Your task to perform on an android device: Open calendar and show me the fourth week of next month Image 0: 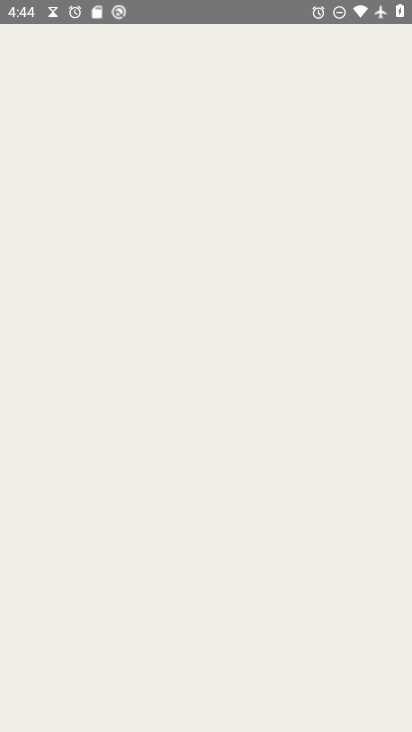
Step 0: drag from (237, 403) to (235, 19)
Your task to perform on an android device: Open calendar and show me the fourth week of next month Image 1: 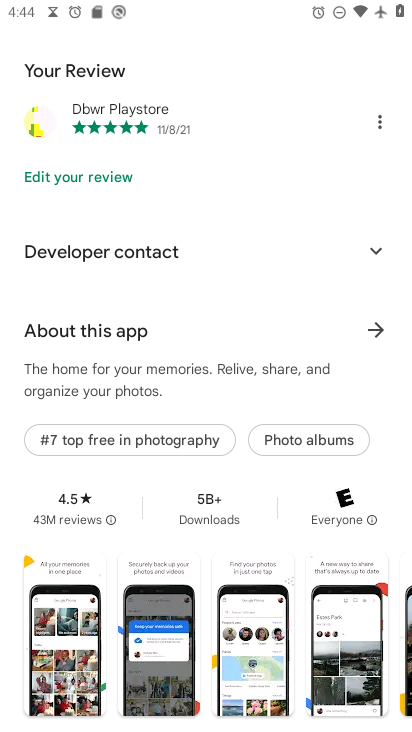
Step 1: press back button
Your task to perform on an android device: Open calendar and show me the fourth week of next month Image 2: 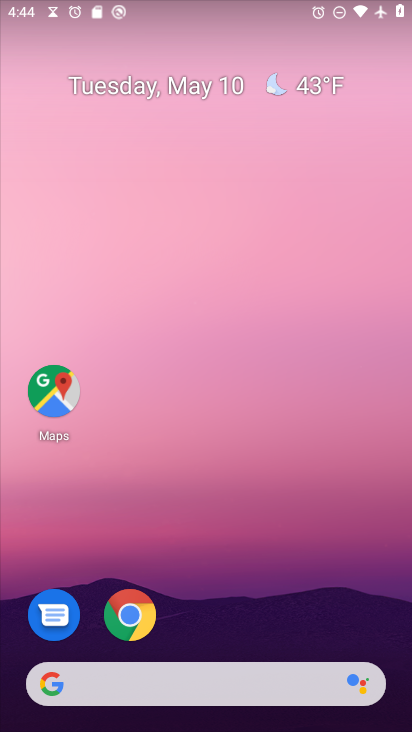
Step 2: drag from (244, 530) to (240, 6)
Your task to perform on an android device: Open calendar and show me the fourth week of next month Image 3: 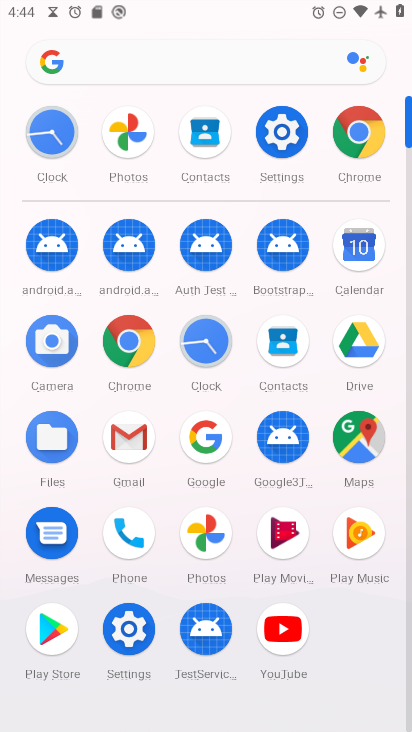
Step 3: click (352, 240)
Your task to perform on an android device: Open calendar and show me the fourth week of next month Image 4: 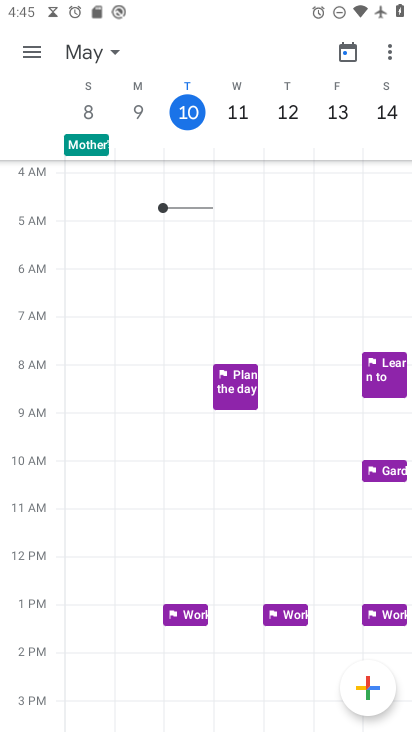
Step 4: click (87, 43)
Your task to perform on an android device: Open calendar and show me the fourth week of next month Image 5: 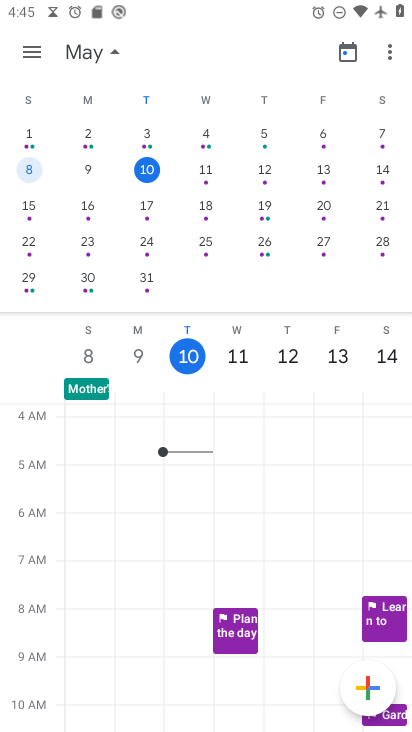
Step 5: drag from (381, 214) to (56, 189)
Your task to perform on an android device: Open calendar and show me the fourth week of next month Image 6: 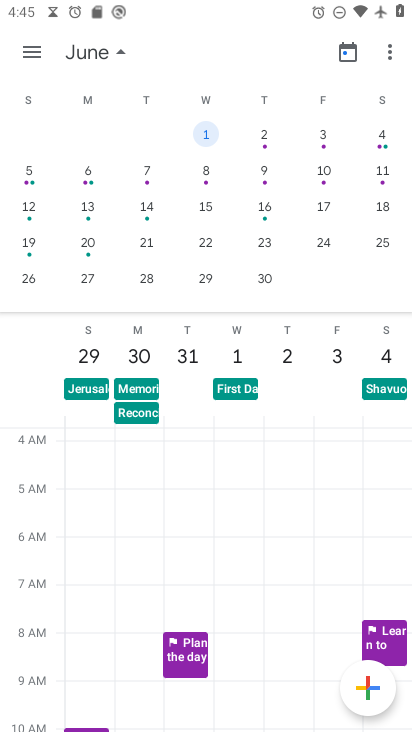
Step 6: click (31, 253)
Your task to perform on an android device: Open calendar and show me the fourth week of next month Image 7: 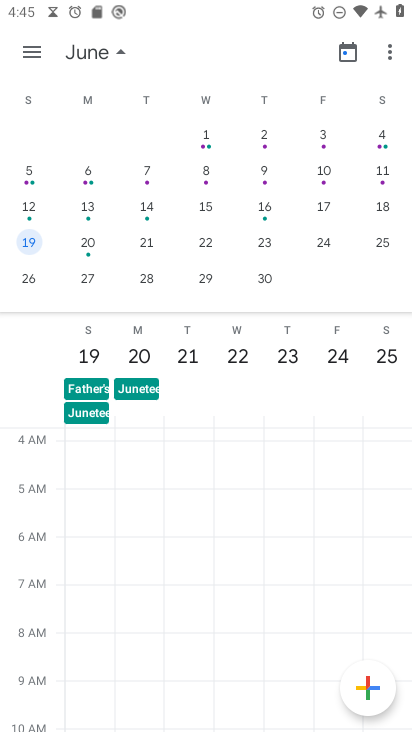
Step 7: click (34, 45)
Your task to perform on an android device: Open calendar and show me the fourth week of next month Image 8: 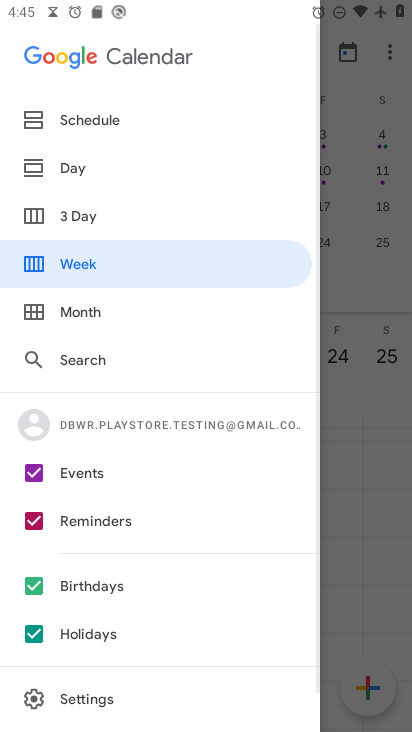
Step 8: click (80, 260)
Your task to perform on an android device: Open calendar and show me the fourth week of next month Image 9: 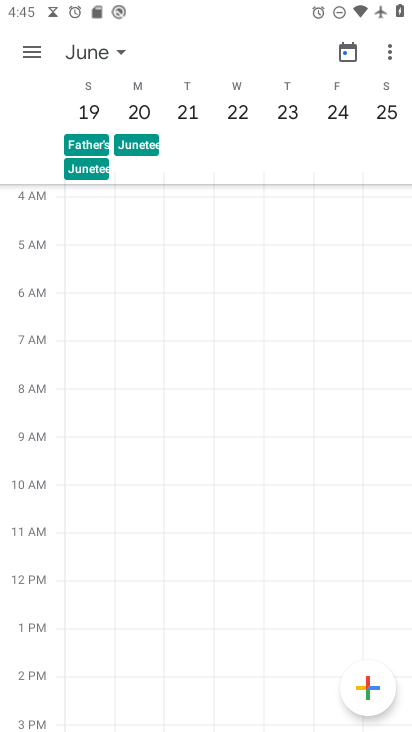
Step 9: task complete